Your task to perform on an android device: find which apps use the phone's location Image 0: 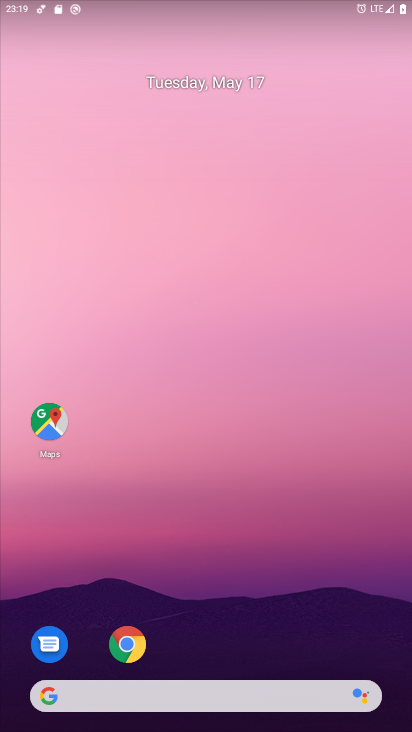
Step 0: press home button
Your task to perform on an android device: find which apps use the phone's location Image 1: 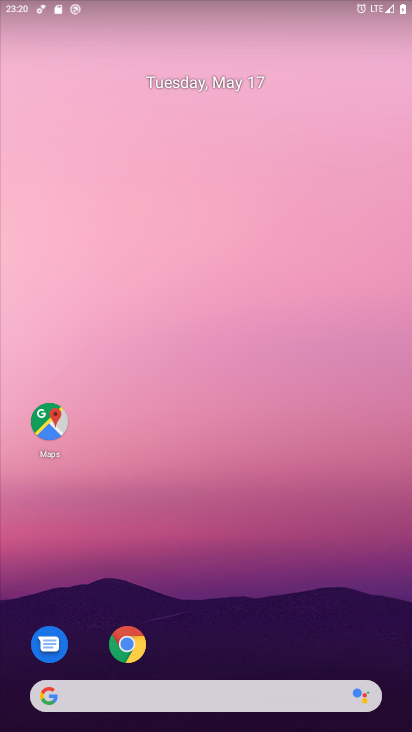
Step 1: drag from (208, 623) to (277, 157)
Your task to perform on an android device: find which apps use the phone's location Image 2: 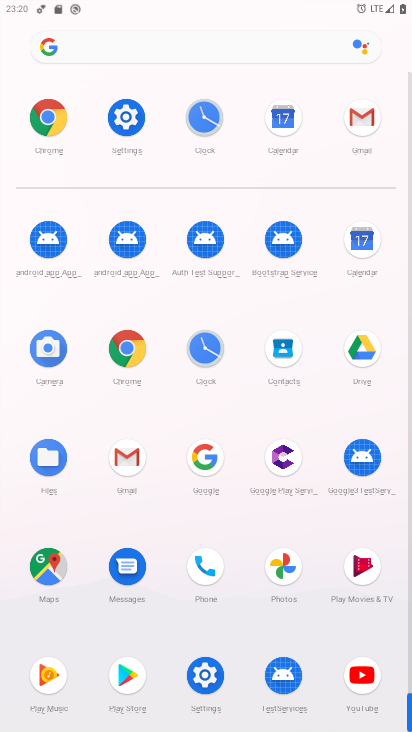
Step 2: click (124, 109)
Your task to perform on an android device: find which apps use the phone's location Image 3: 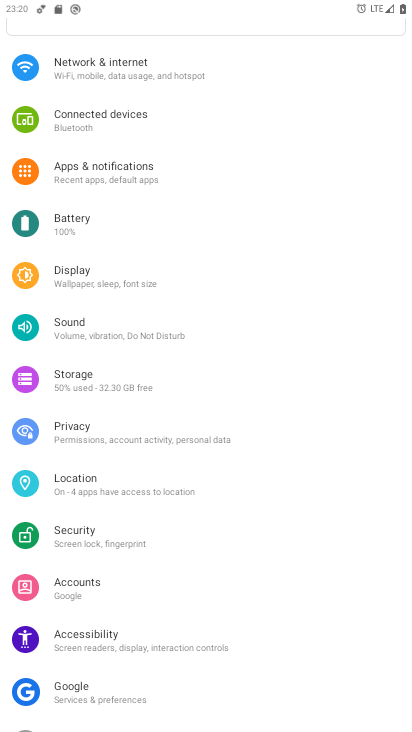
Step 3: click (106, 479)
Your task to perform on an android device: find which apps use the phone's location Image 4: 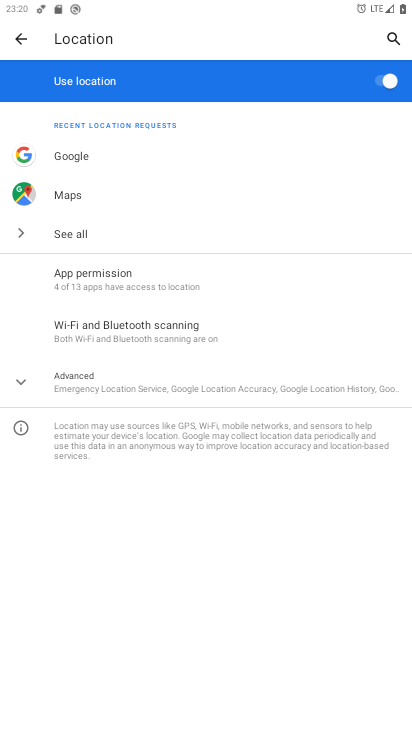
Step 4: click (102, 282)
Your task to perform on an android device: find which apps use the phone's location Image 5: 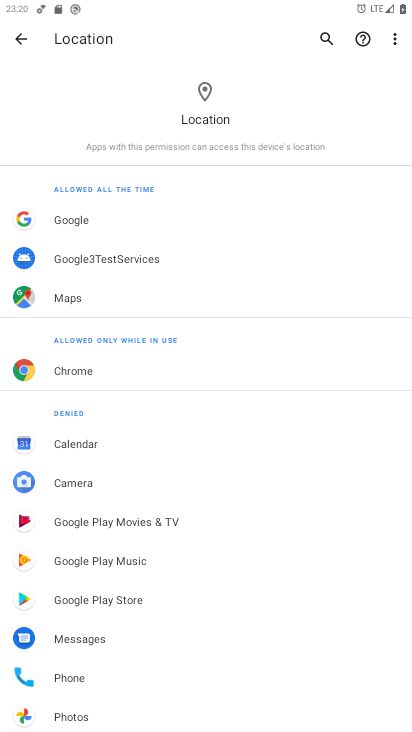
Step 5: task complete